Your task to perform on an android device: turn off airplane mode Image 0: 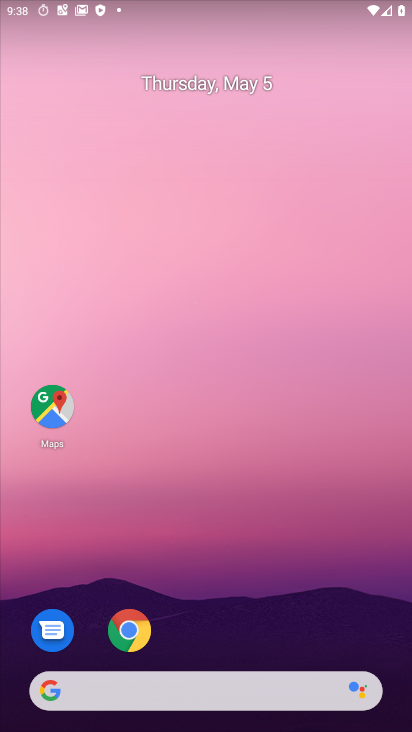
Step 0: drag from (242, 554) to (95, 85)
Your task to perform on an android device: turn off airplane mode Image 1: 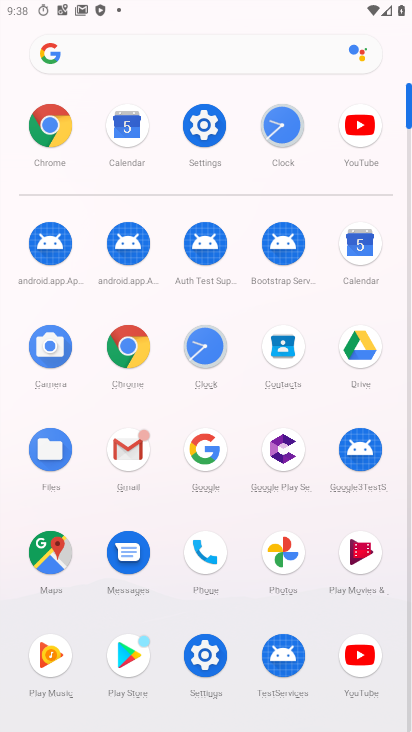
Step 1: click (210, 659)
Your task to perform on an android device: turn off airplane mode Image 2: 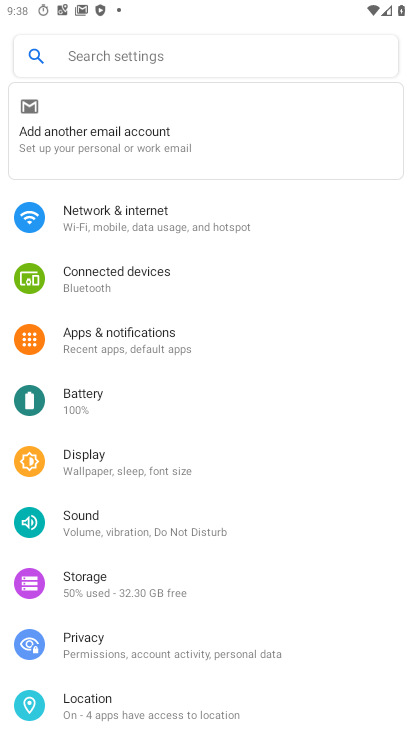
Step 2: click (142, 223)
Your task to perform on an android device: turn off airplane mode Image 3: 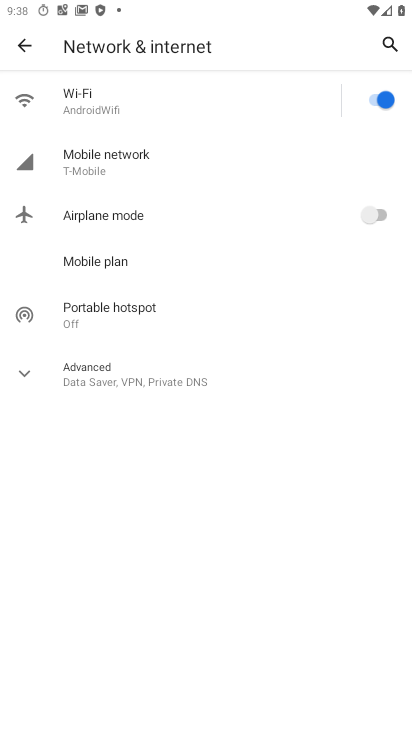
Step 3: task complete